Your task to perform on an android device: change the clock display to analog Image 0: 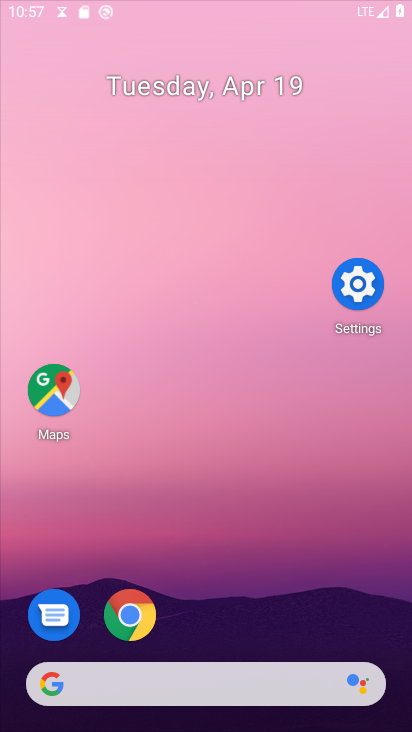
Step 0: click (10, 495)
Your task to perform on an android device: change the clock display to analog Image 1: 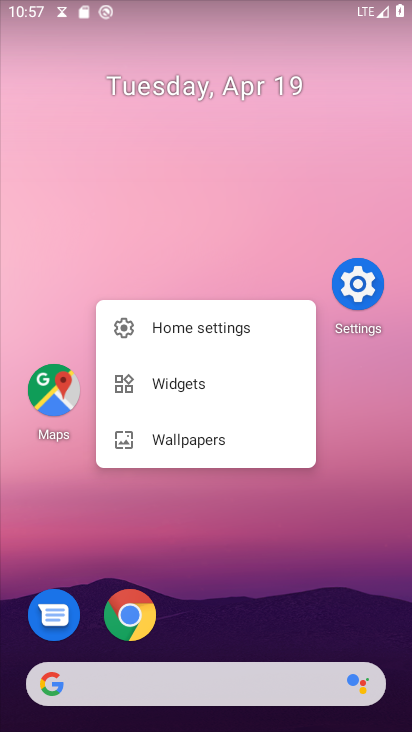
Step 1: drag from (216, 570) to (394, 150)
Your task to perform on an android device: change the clock display to analog Image 2: 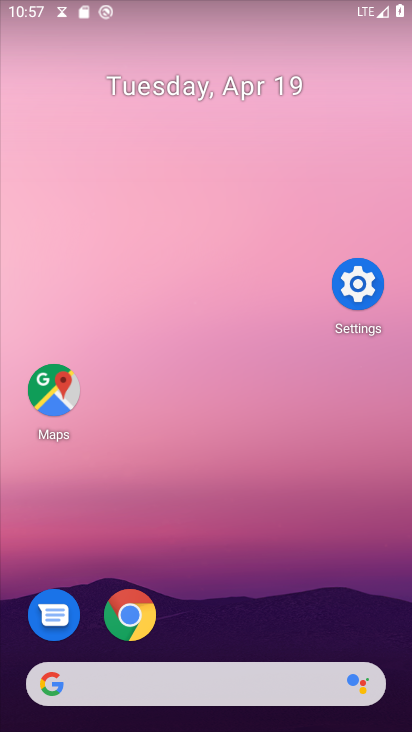
Step 2: drag from (198, 639) to (293, 146)
Your task to perform on an android device: change the clock display to analog Image 3: 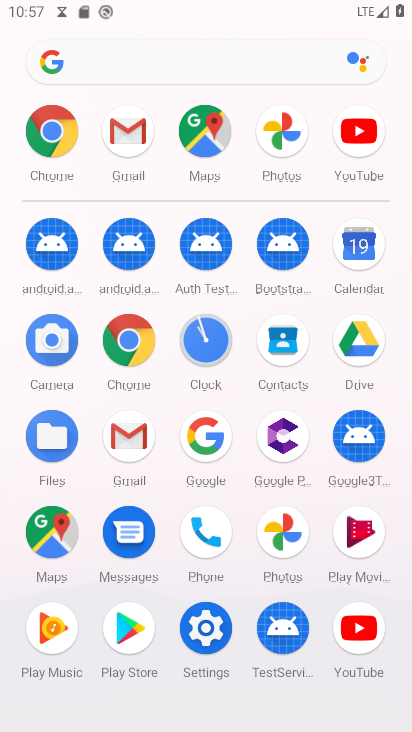
Step 3: click (211, 326)
Your task to perform on an android device: change the clock display to analog Image 4: 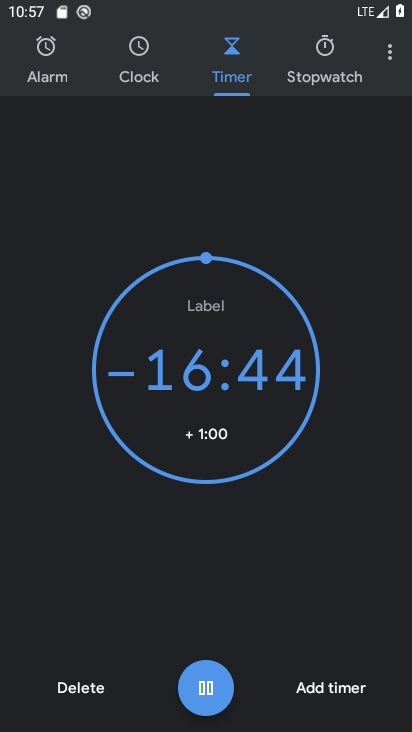
Step 4: click (393, 49)
Your task to perform on an android device: change the clock display to analog Image 5: 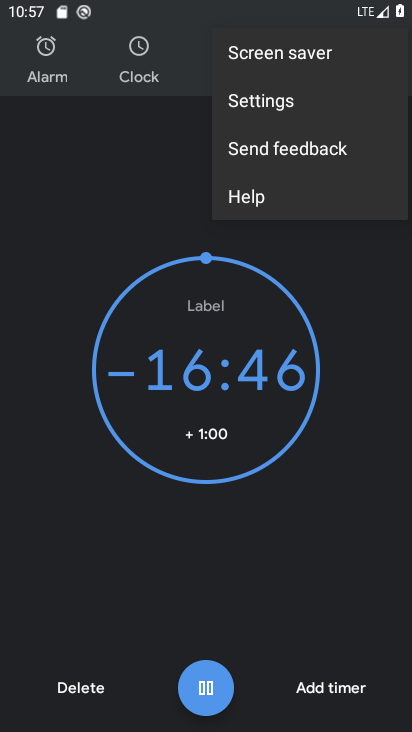
Step 5: click (267, 101)
Your task to perform on an android device: change the clock display to analog Image 6: 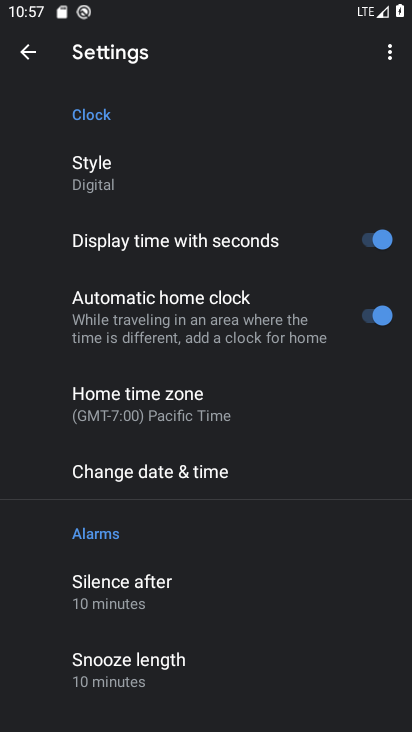
Step 6: click (162, 159)
Your task to perform on an android device: change the clock display to analog Image 7: 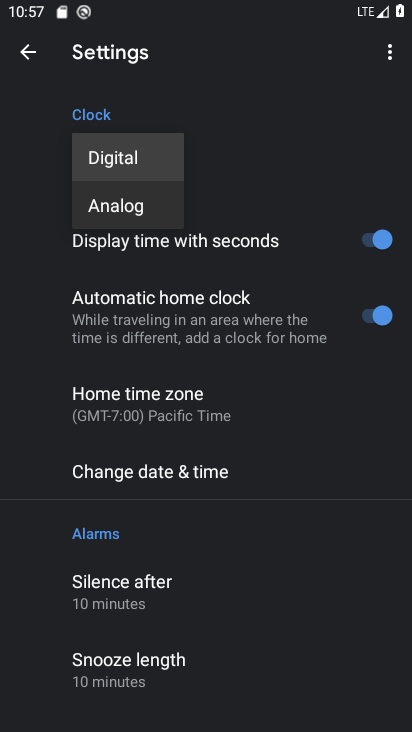
Step 7: click (142, 198)
Your task to perform on an android device: change the clock display to analog Image 8: 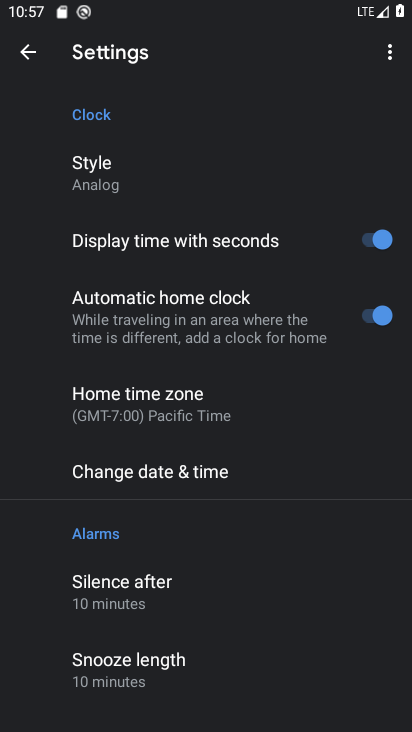
Step 8: task complete